Your task to perform on an android device: turn off sleep mode Image 0: 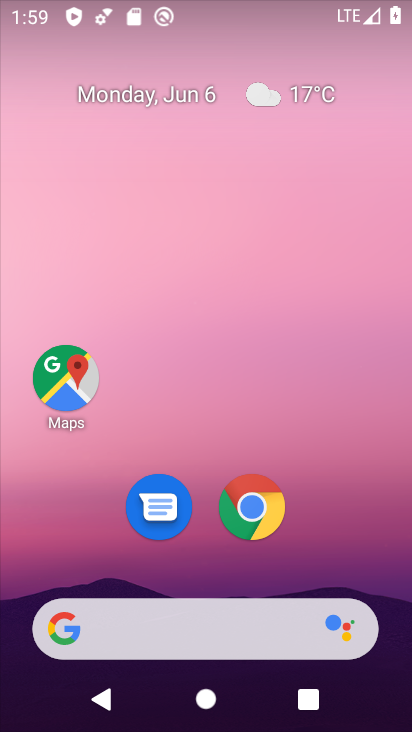
Step 0: drag from (397, 590) to (255, 150)
Your task to perform on an android device: turn off sleep mode Image 1: 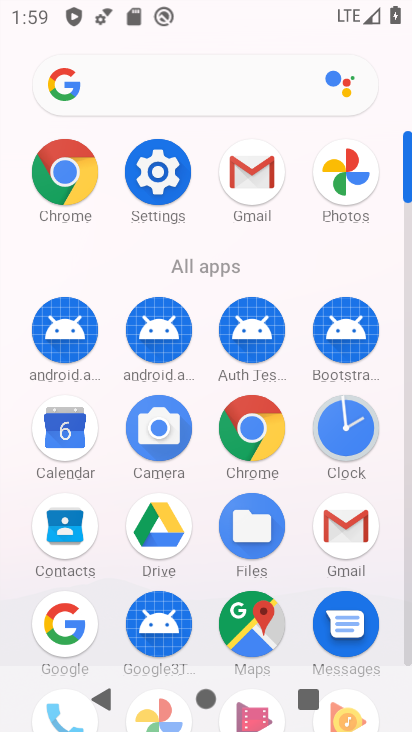
Step 1: click (168, 182)
Your task to perform on an android device: turn off sleep mode Image 2: 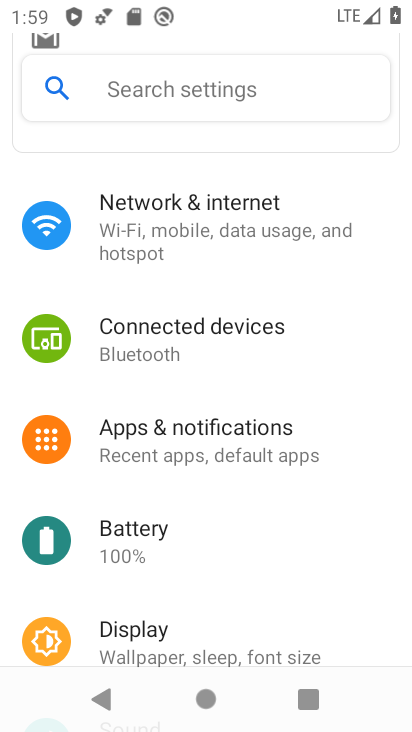
Step 2: drag from (262, 614) to (222, 432)
Your task to perform on an android device: turn off sleep mode Image 3: 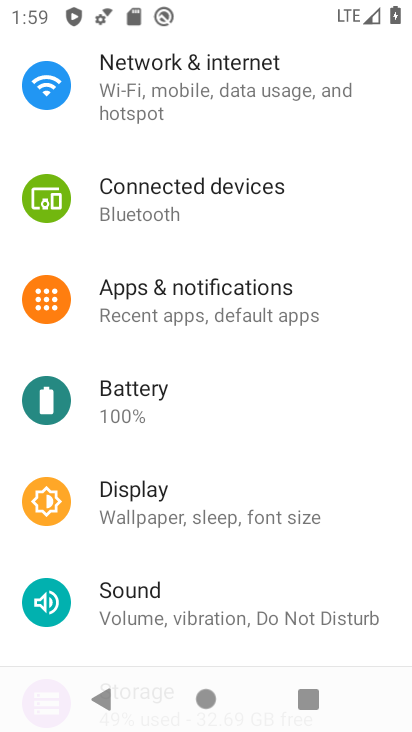
Step 3: click (246, 534)
Your task to perform on an android device: turn off sleep mode Image 4: 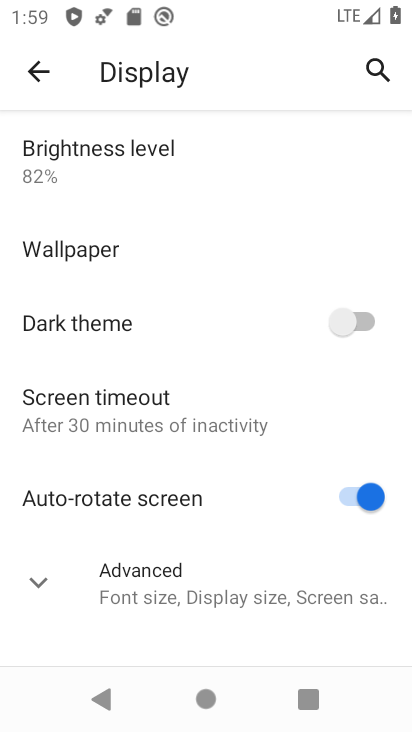
Step 4: click (278, 599)
Your task to perform on an android device: turn off sleep mode Image 5: 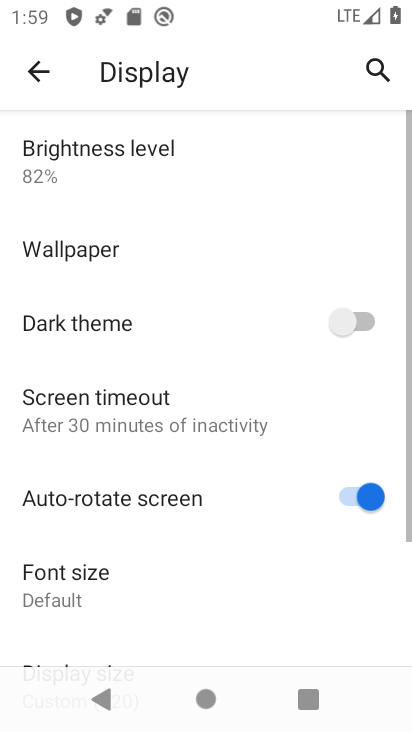
Step 5: task complete